Your task to perform on an android device: What's the weather today? Image 0: 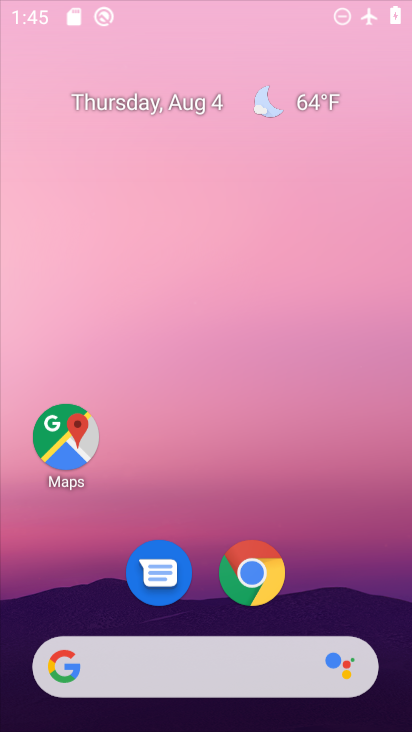
Step 0: click (271, 130)
Your task to perform on an android device: What's the weather today? Image 1: 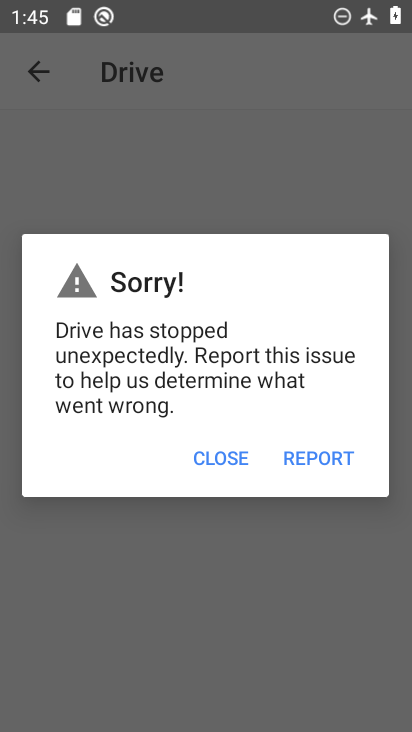
Step 1: press home button
Your task to perform on an android device: What's the weather today? Image 2: 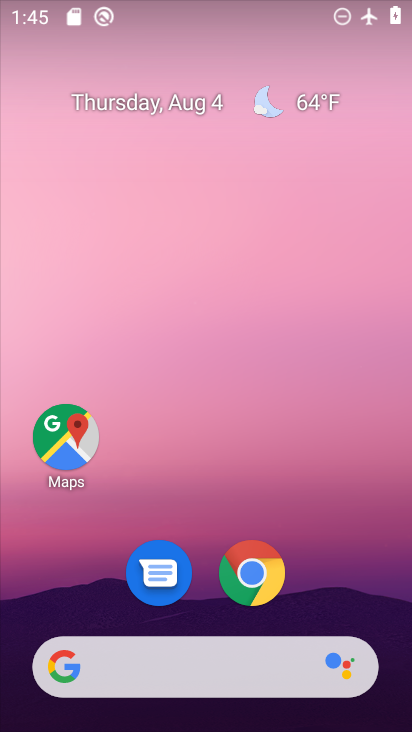
Step 2: drag from (327, 608) to (289, 153)
Your task to perform on an android device: What's the weather today? Image 3: 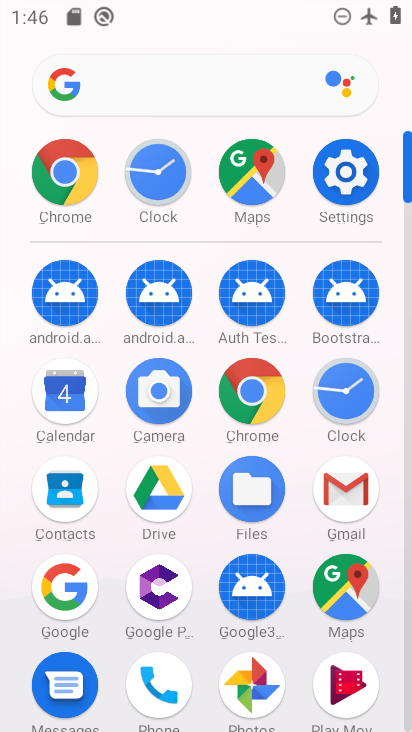
Step 3: press home button
Your task to perform on an android device: What's the weather today? Image 4: 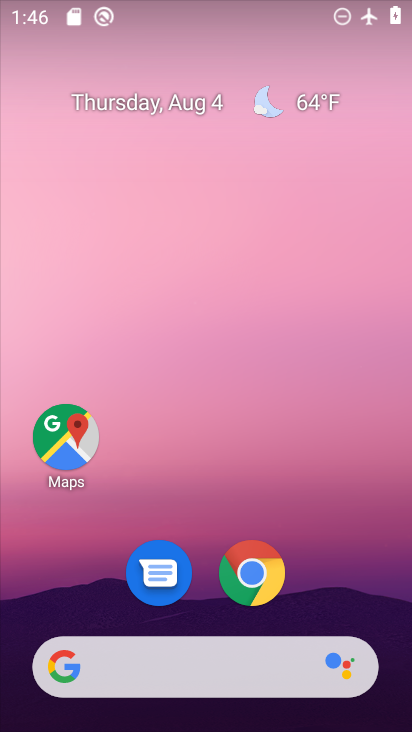
Step 4: click (314, 97)
Your task to perform on an android device: What's the weather today? Image 5: 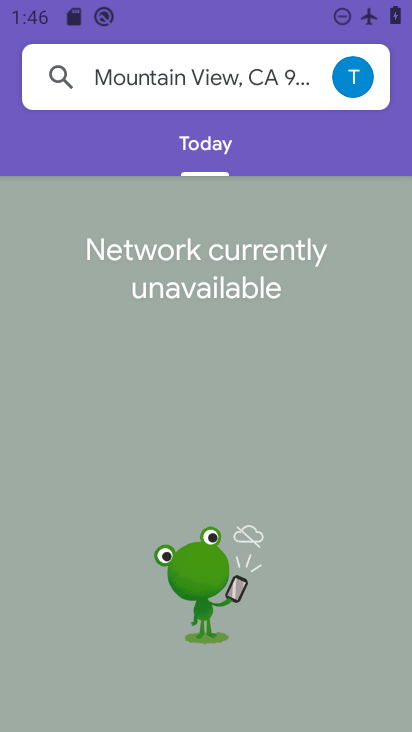
Step 5: task complete